Your task to perform on an android device: turn on airplane mode Image 0: 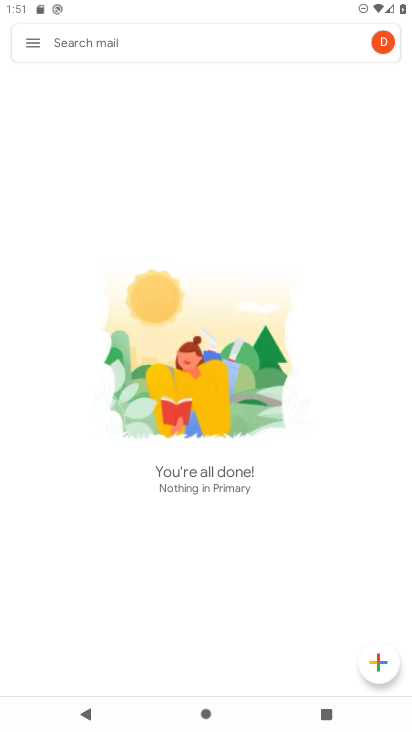
Step 0: press home button
Your task to perform on an android device: turn on airplane mode Image 1: 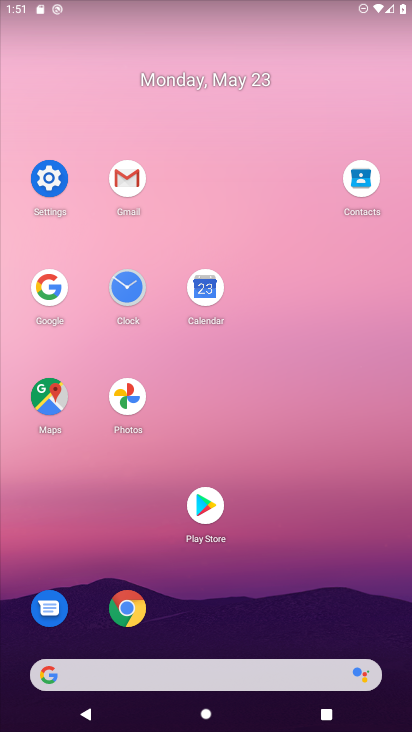
Step 1: click (60, 173)
Your task to perform on an android device: turn on airplane mode Image 2: 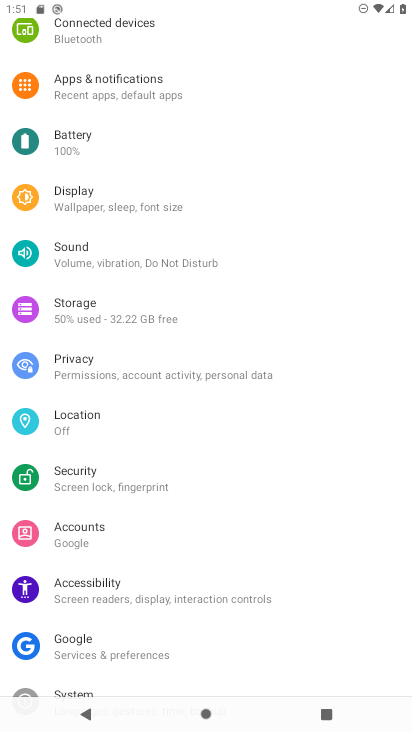
Step 2: drag from (234, 138) to (298, 568)
Your task to perform on an android device: turn on airplane mode Image 3: 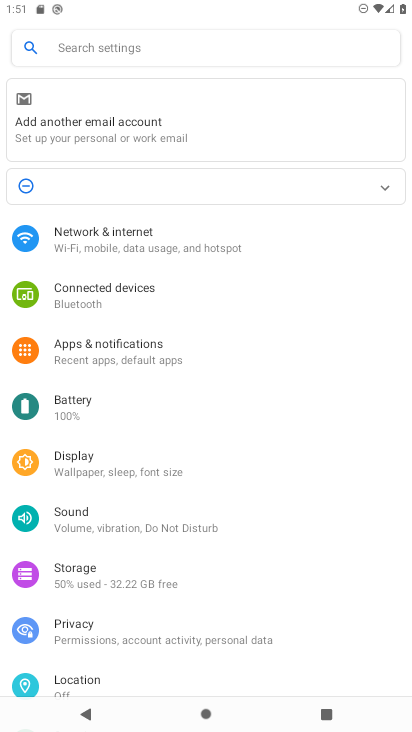
Step 3: click (108, 229)
Your task to perform on an android device: turn on airplane mode Image 4: 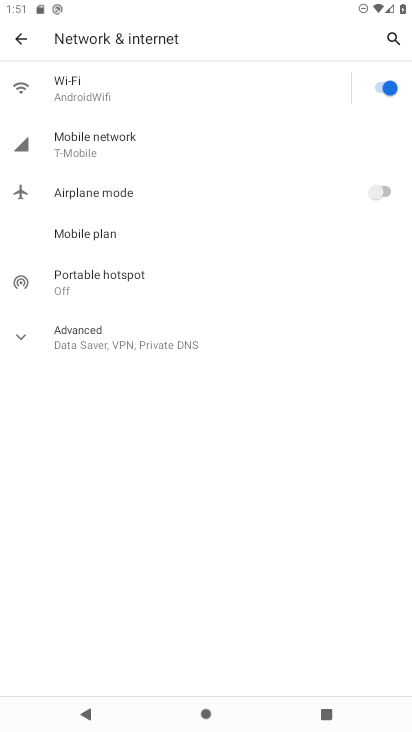
Step 4: click (377, 193)
Your task to perform on an android device: turn on airplane mode Image 5: 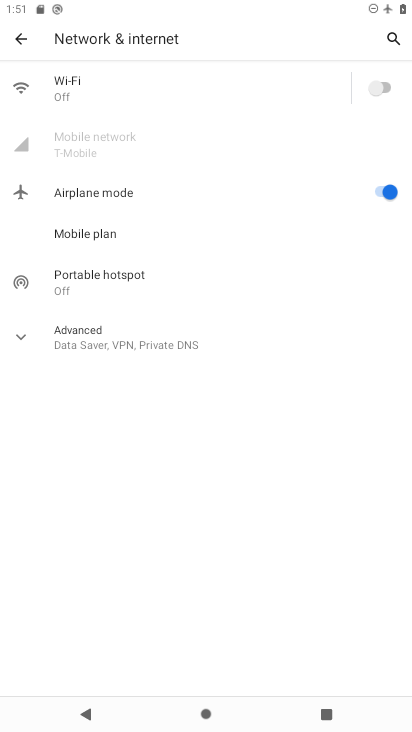
Step 5: task complete